Your task to perform on an android device: turn off translation in the chrome app Image 0: 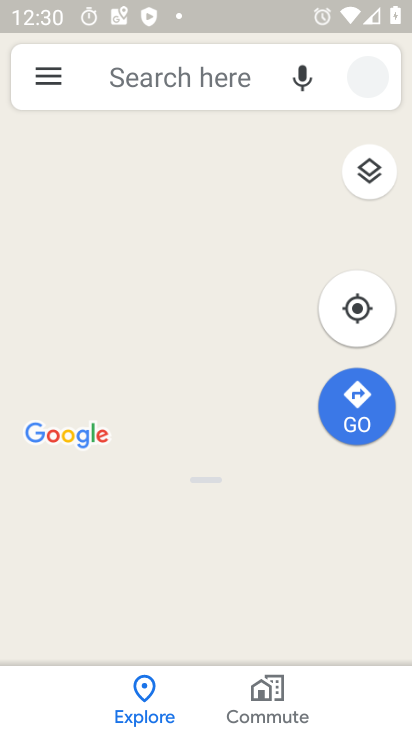
Step 0: press home button
Your task to perform on an android device: turn off translation in the chrome app Image 1: 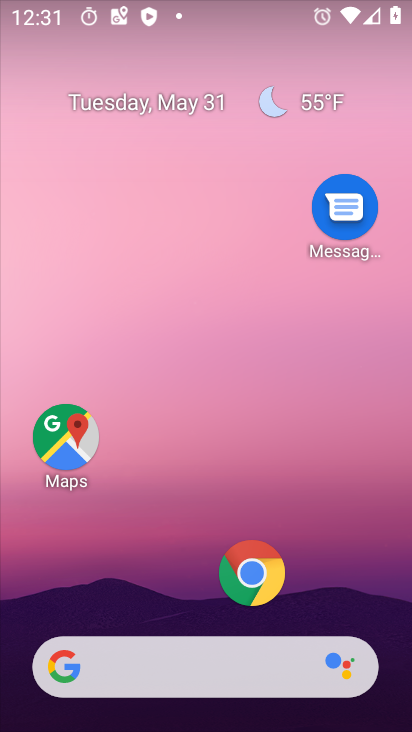
Step 1: click (250, 573)
Your task to perform on an android device: turn off translation in the chrome app Image 2: 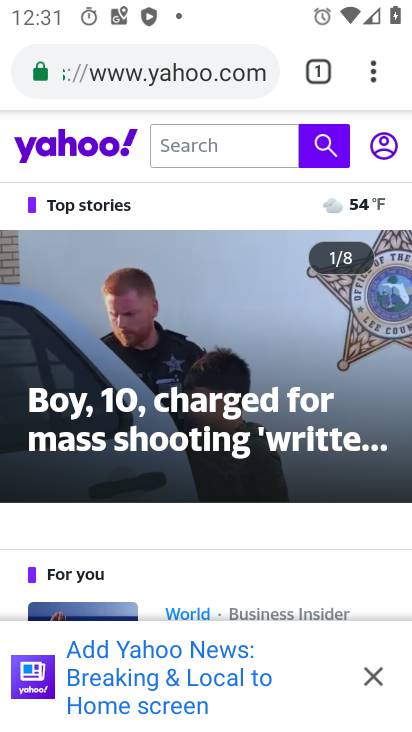
Step 2: click (364, 64)
Your task to perform on an android device: turn off translation in the chrome app Image 3: 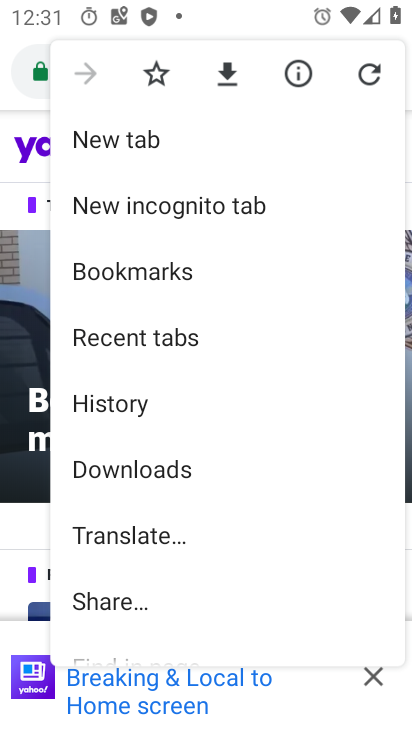
Step 3: drag from (143, 611) to (228, 245)
Your task to perform on an android device: turn off translation in the chrome app Image 4: 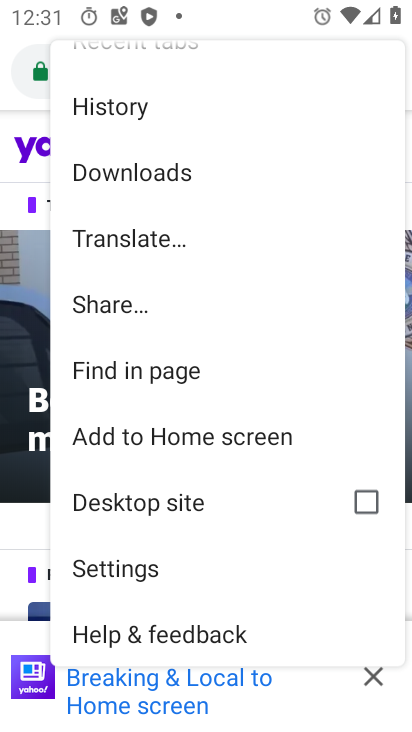
Step 4: click (117, 566)
Your task to perform on an android device: turn off translation in the chrome app Image 5: 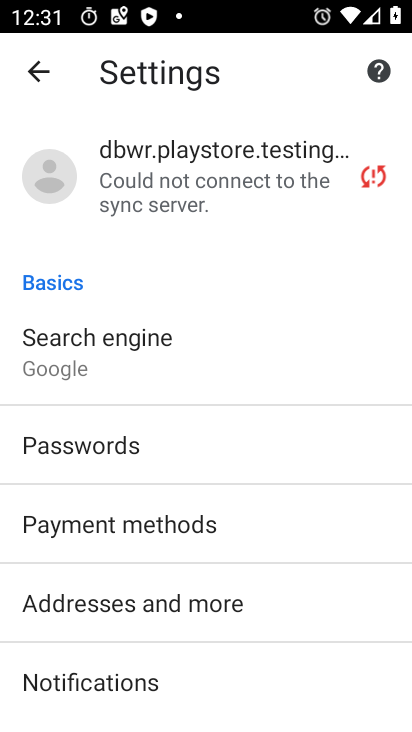
Step 5: drag from (135, 476) to (220, 138)
Your task to perform on an android device: turn off translation in the chrome app Image 6: 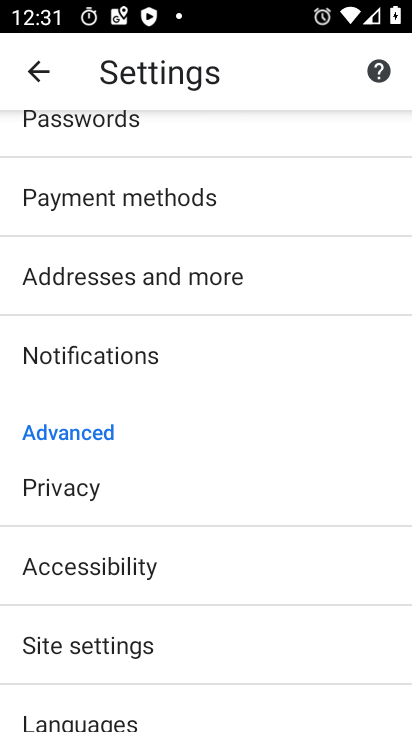
Step 6: click (131, 704)
Your task to perform on an android device: turn off translation in the chrome app Image 7: 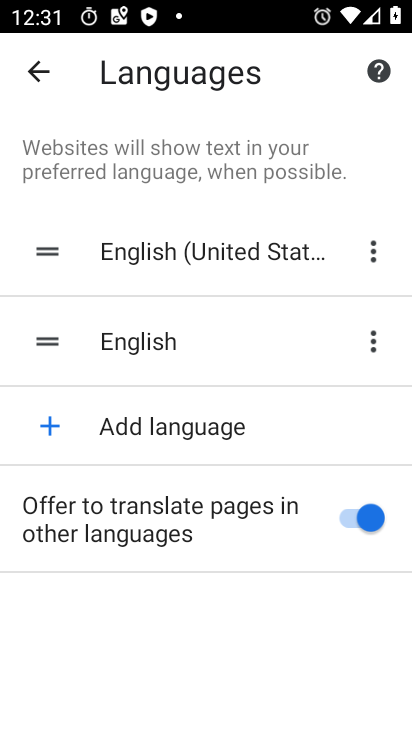
Step 7: click (350, 519)
Your task to perform on an android device: turn off translation in the chrome app Image 8: 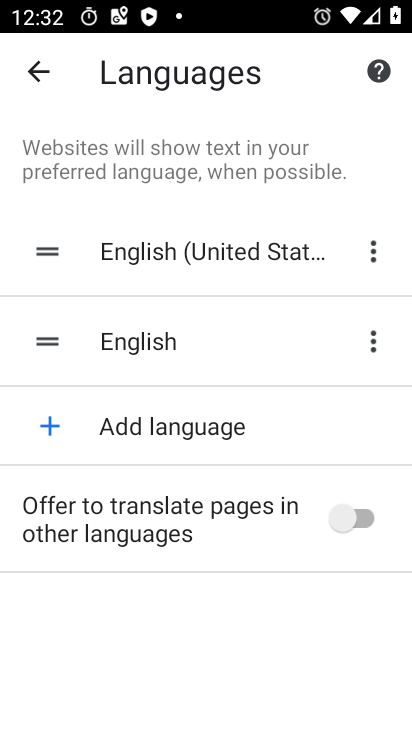
Step 8: task complete